Your task to perform on an android device: turn off priority inbox in the gmail app Image 0: 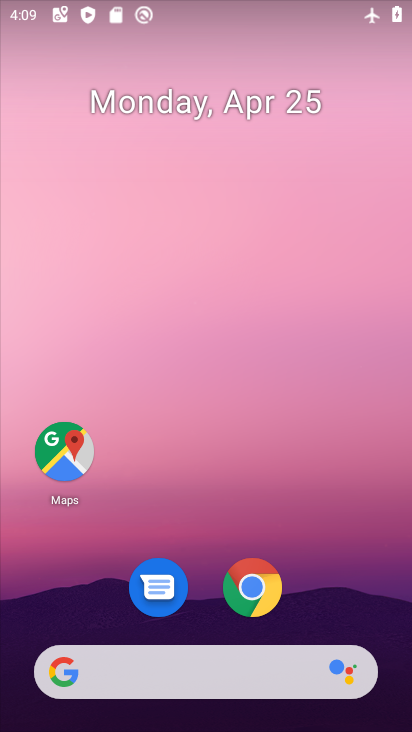
Step 0: drag from (359, 558) to (377, 10)
Your task to perform on an android device: turn off priority inbox in the gmail app Image 1: 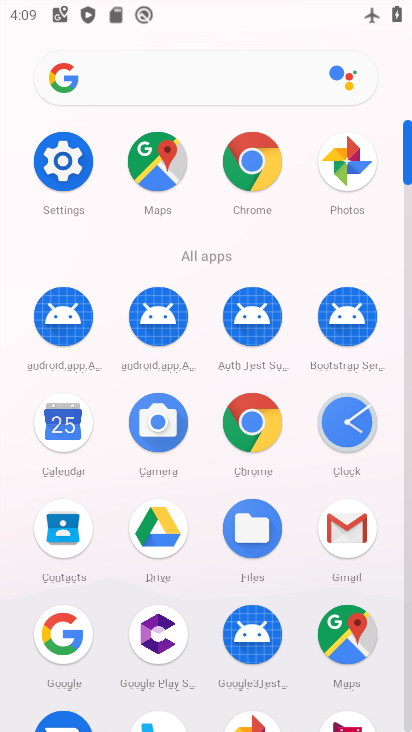
Step 1: click (343, 544)
Your task to perform on an android device: turn off priority inbox in the gmail app Image 2: 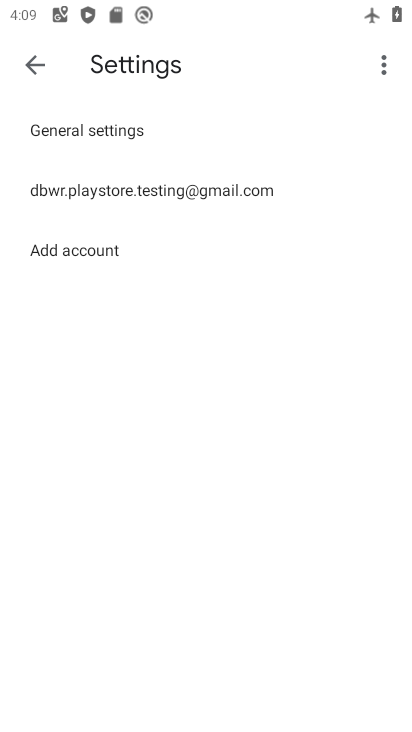
Step 2: click (101, 186)
Your task to perform on an android device: turn off priority inbox in the gmail app Image 3: 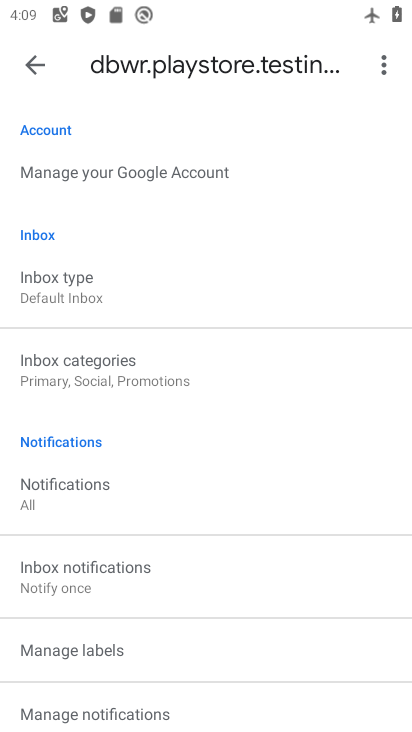
Step 3: click (54, 299)
Your task to perform on an android device: turn off priority inbox in the gmail app Image 4: 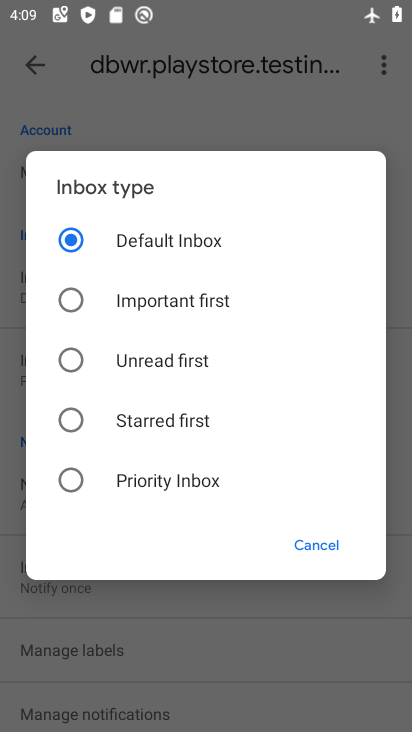
Step 4: task complete